Your task to perform on an android device: Go to display settings Image 0: 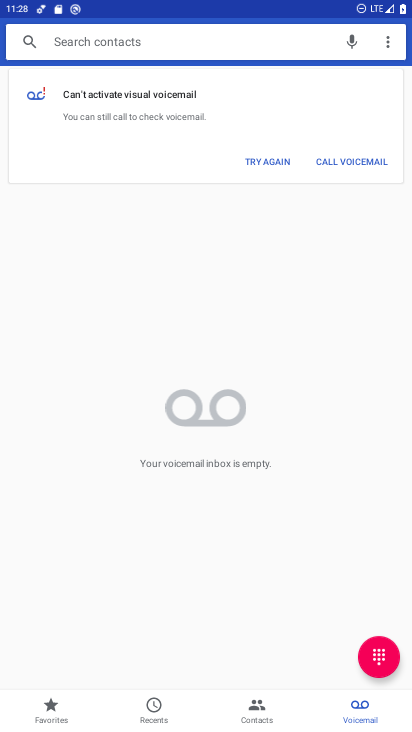
Step 0: press home button
Your task to perform on an android device: Go to display settings Image 1: 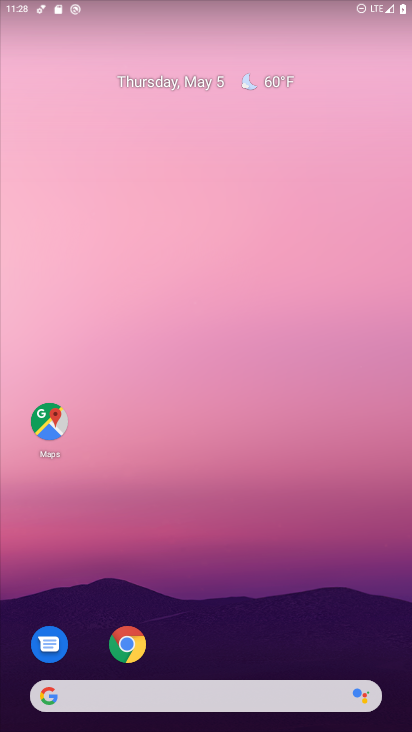
Step 1: drag from (324, 607) to (335, 146)
Your task to perform on an android device: Go to display settings Image 2: 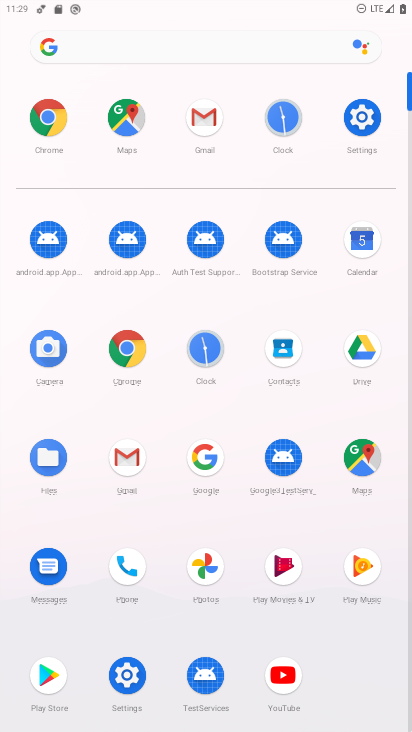
Step 2: click (122, 691)
Your task to perform on an android device: Go to display settings Image 3: 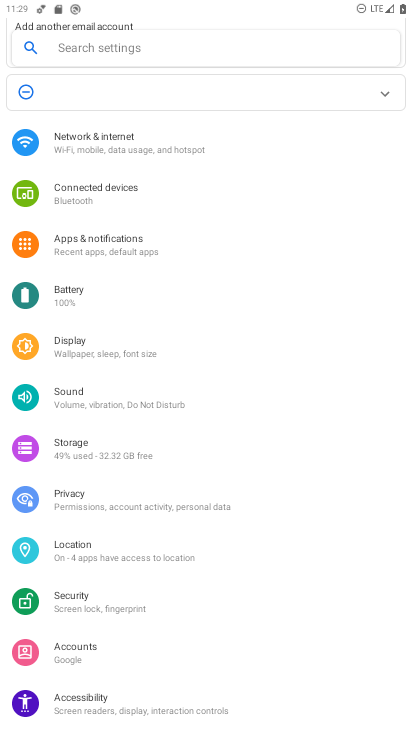
Step 3: click (83, 345)
Your task to perform on an android device: Go to display settings Image 4: 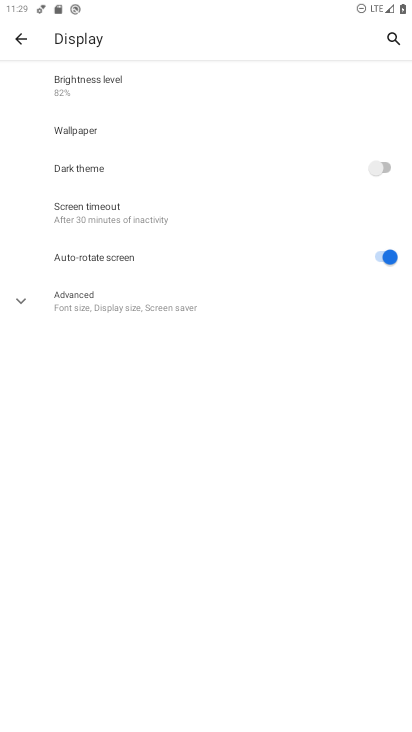
Step 4: task complete